Your task to perform on an android device: Show me recent news Image 0: 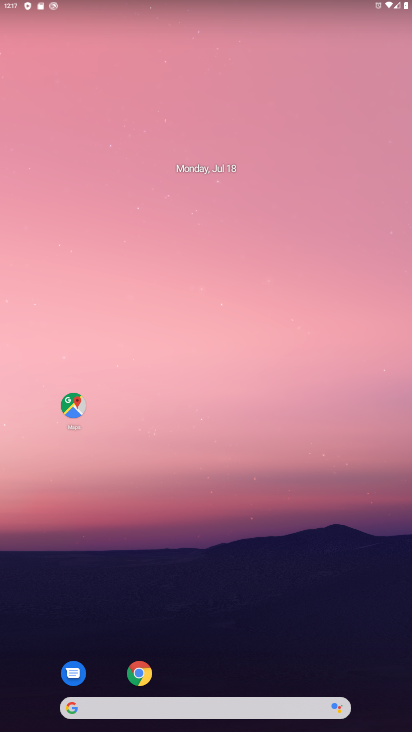
Step 0: drag from (284, 661) to (250, 82)
Your task to perform on an android device: Show me recent news Image 1: 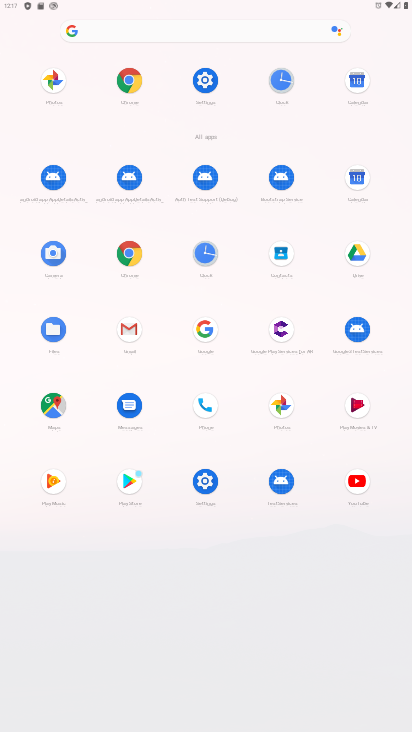
Step 1: click (230, 34)
Your task to perform on an android device: Show me recent news Image 2: 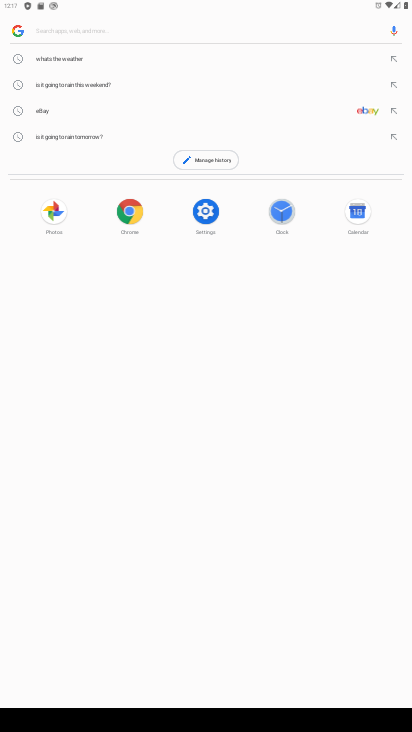
Step 2: type "news"
Your task to perform on an android device: Show me recent news Image 3: 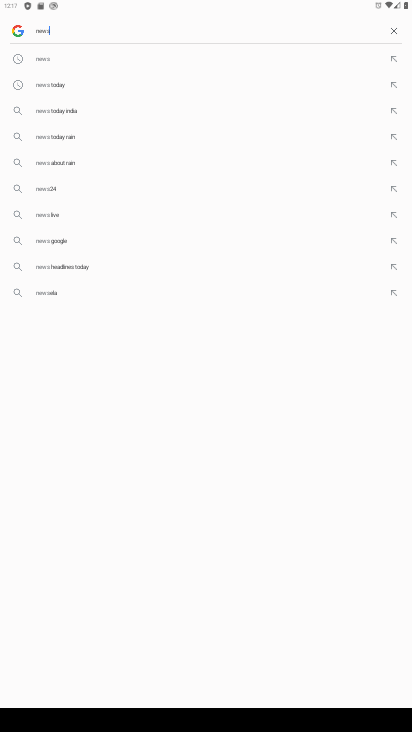
Step 3: click (131, 62)
Your task to perform on an android device: Show me recent news Image 4: 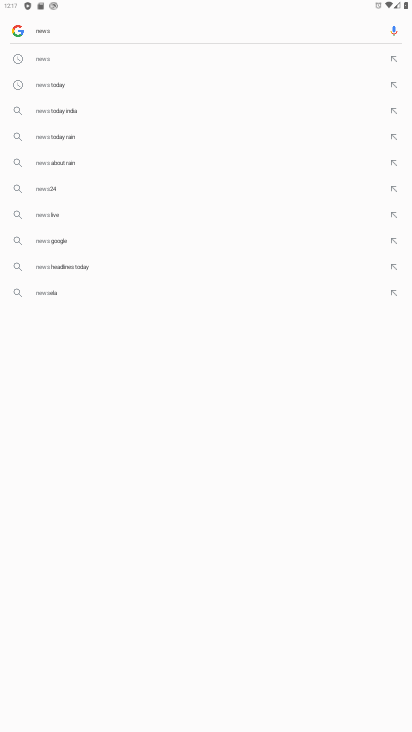
Step 4: task complete